Your task to perform on an android device: make emails show in primary in the gmail app Image 0: 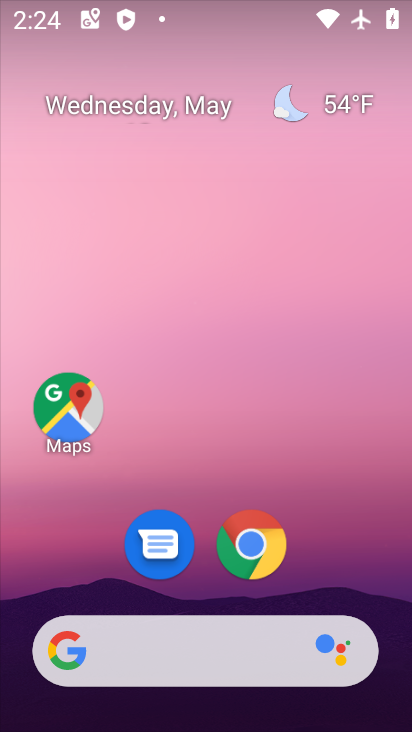
Step 0: drag from (384, 556) to (304, 3)
Your task to perform on an android device: make emails show in primary in the gmail app Image 1: 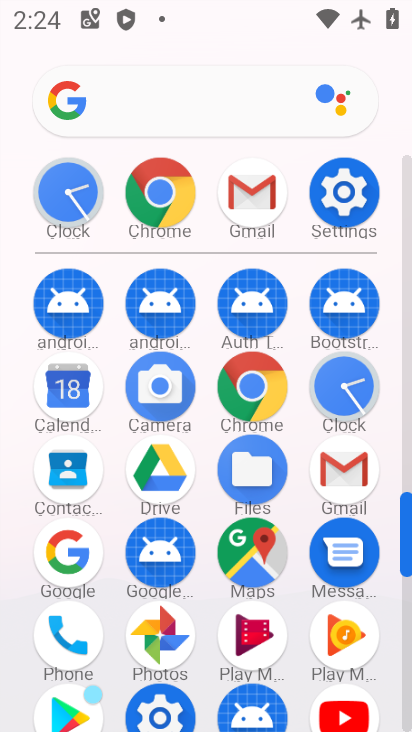
Step 1: click (246, 184)
Your task to perform on an android device: make emails show in primary in the gmail app Image 2: 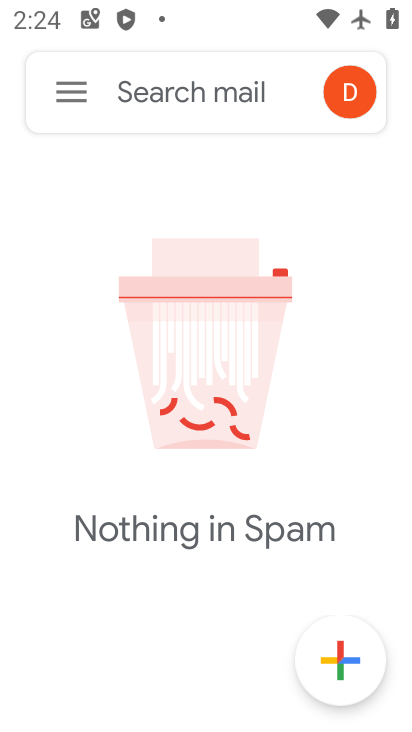
Step 2: click (50, 84)
Your task to perform on an android device: make emails show in primary in the gmail app Image 3: 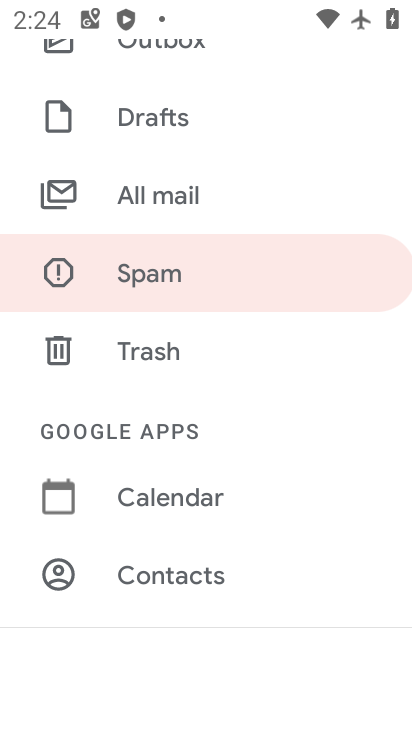
Step 3: drag from (210, 192) to (211, 158)
Your task to perform on an android device: make emails show in primary in the gmail app Image 4: 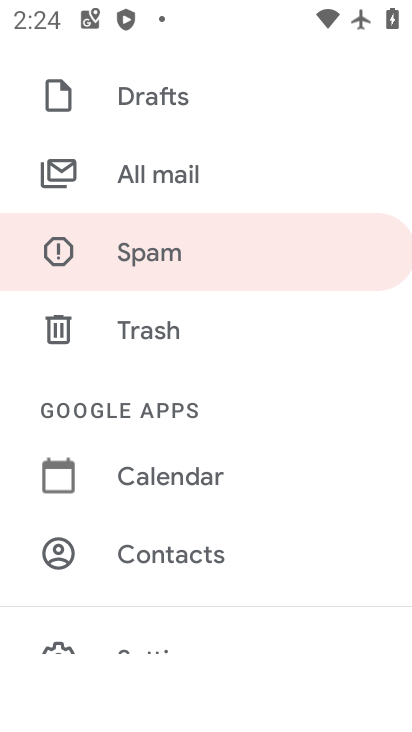
Step 4: drag from (147, 565) to (185, 357)
Your task to perform on an android device: make emails show in primary in the gmail app Image 5: 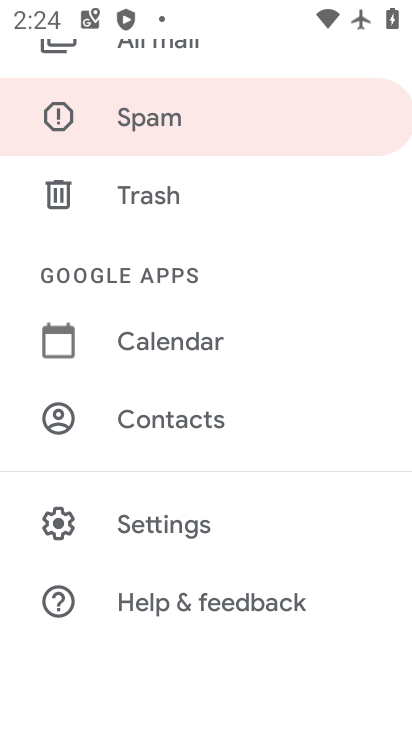
Step 5: click (188, 527)
Your task to perform on an android device: make emails show in primary in the gmail app Image 6: 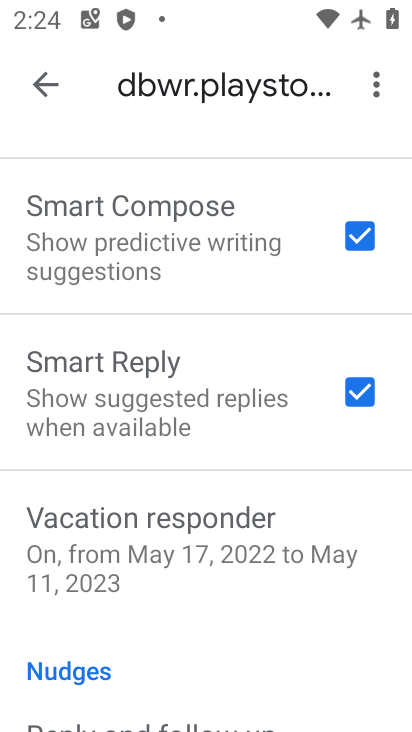
Step 6: task complete